Your task to perform on an android device: Open settings Image 0: 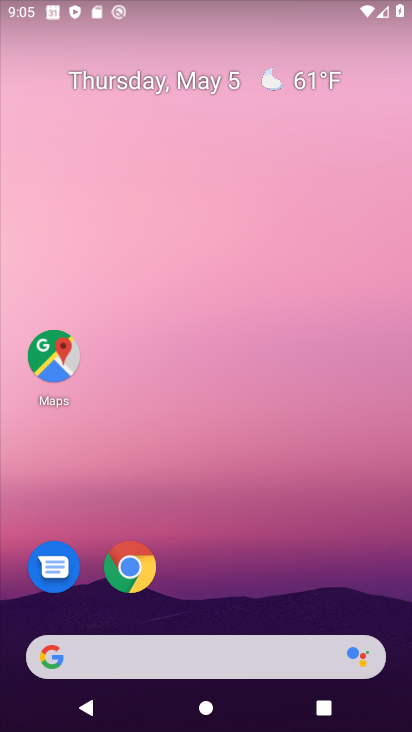
Step 0: drag from (231, 723) to (226, 26)
Your task to perform on an android device: Open settings Image 1: 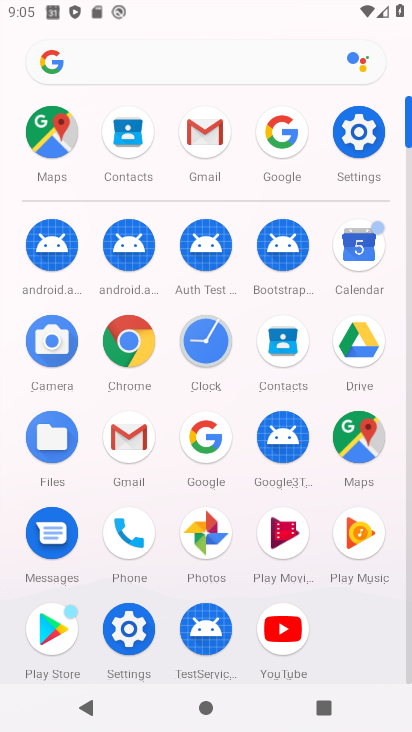
Step 1: click (357, 137)
Your task to perform on an android device: Open settings Image 2: 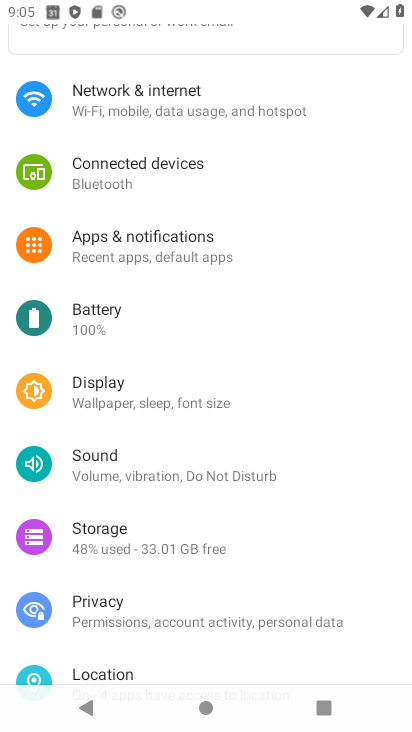
Step 2: task complete